Your task to perform on an android device: toggle show notifications on the lock screen Image 0: 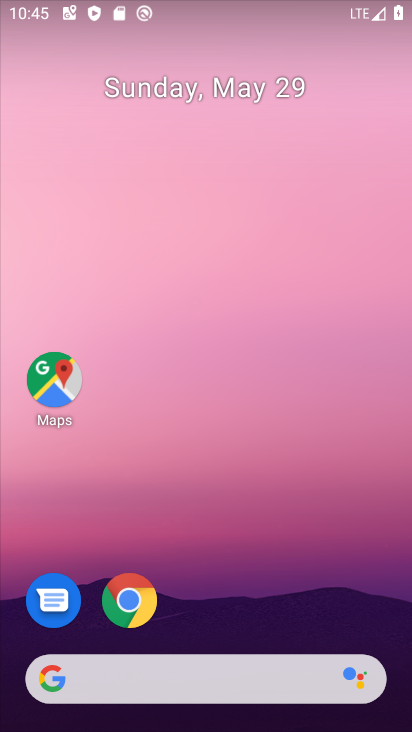
Step 0: drag from (213, 606) to (333, 15)
Your task to perform on an android device: toggle show notifications on the lock screen Image 1: 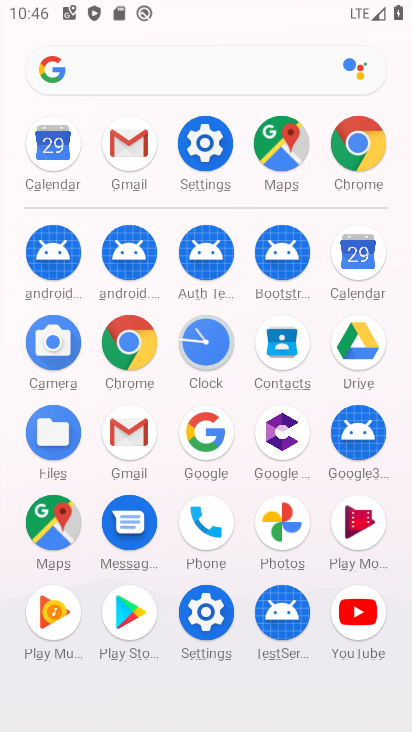
Step 1: click (191, 610)
Your task to perform on an android device: toggle show notifications on the lock screen Image 2: 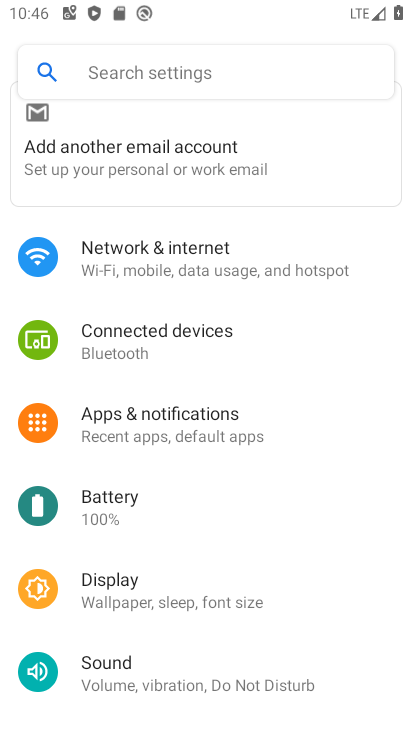
Step 2: click (101, 441)
Your task to perform on an android device: toggle show notifications on the lock screen Image 3: 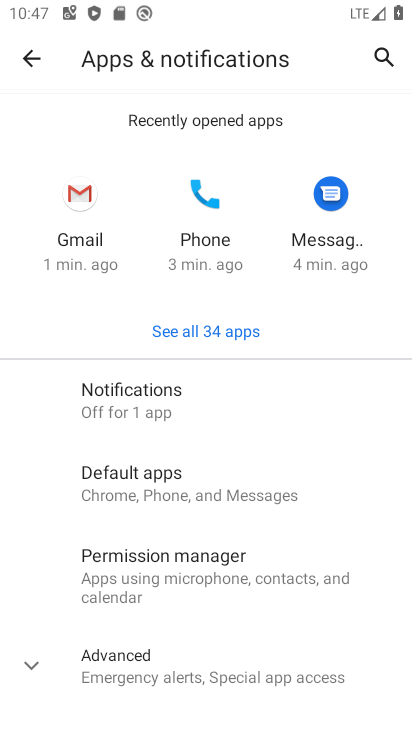
Step 3: click (116, 421)
Your task to perform on an android device: toggle show notifications on the lock screen Image 4: 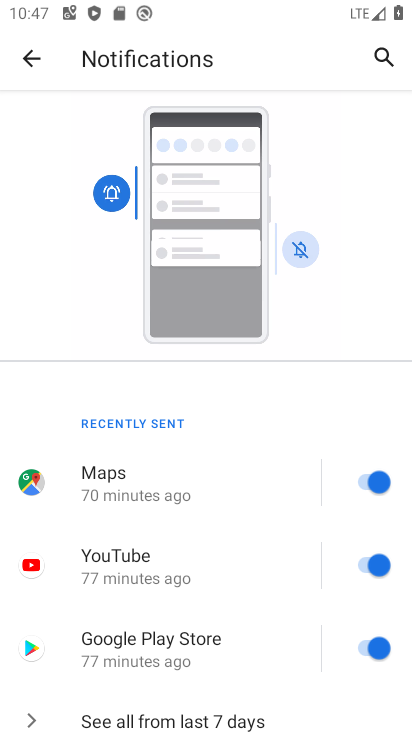
Step 4: drag from (229, 592) to (296, 326)
Your task to perform on an android device: toggle show notifications on the lock screen Image 5: 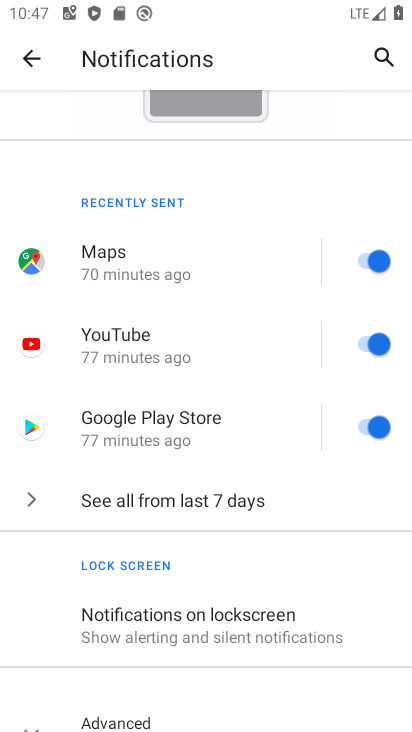
Step 5: click (214, 650)
Your task to perform on an android device: toggle show notifications on the lock screen Image 6: 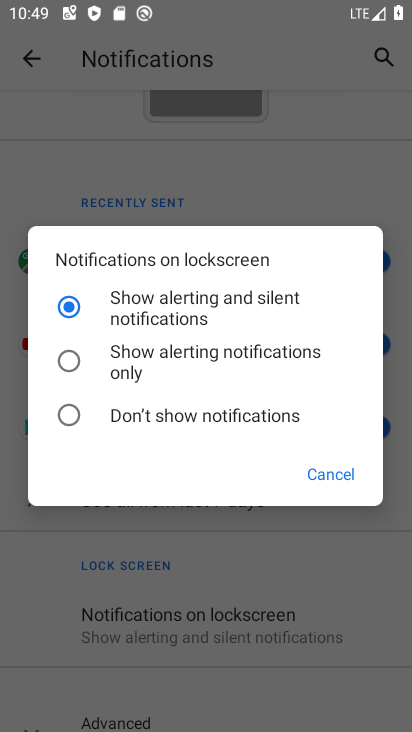
Step 6: click (190, 365)
Your task to perform on an android device: toggle show notifications on the lock screen Image 7: 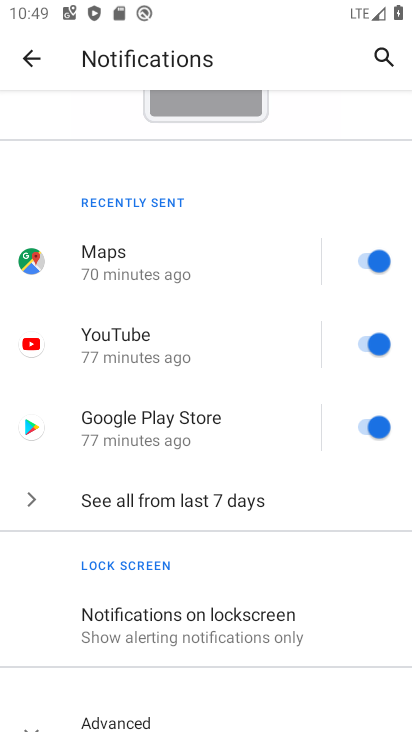
Step 7: task complete